Your task to perform on an android device: turn on airplane mode Image 0: 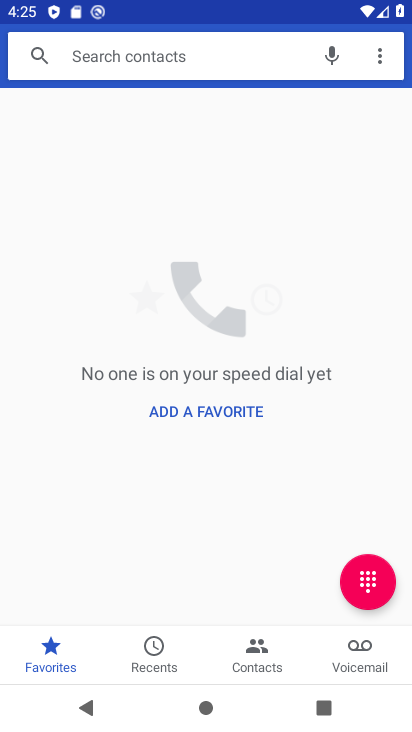
Step 0: press home button
Your task to perform on an android device: turn on airplane mode Image 1: 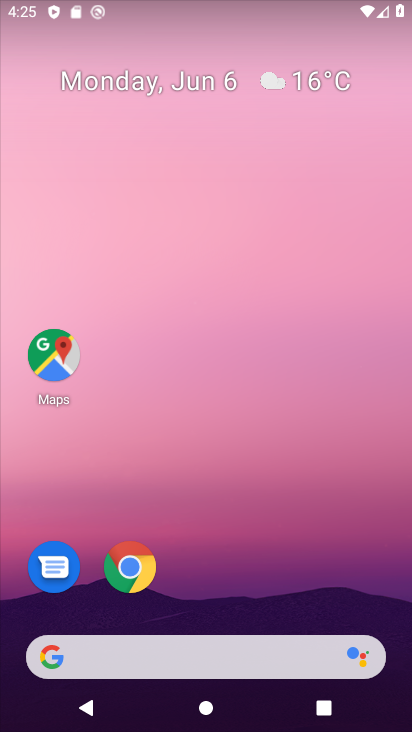
Step 1: drag from (267, 499) to (373, 86)
Your task to perform on an android device: turn on airplane mode Image 2: 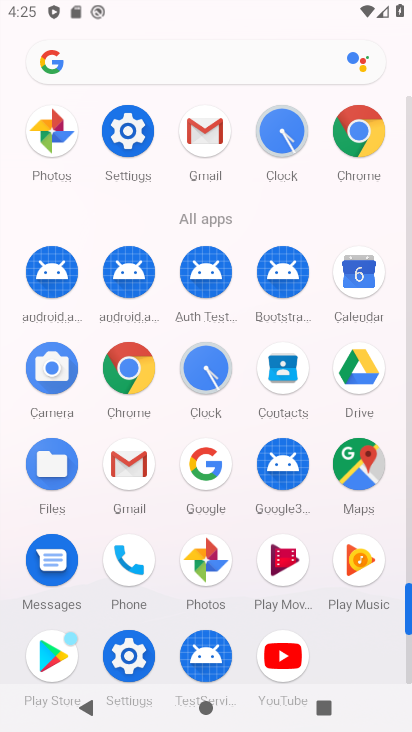
Step 2: click (137, 654)
Your task to perform on an android device: turn on airplane mode Image 3: 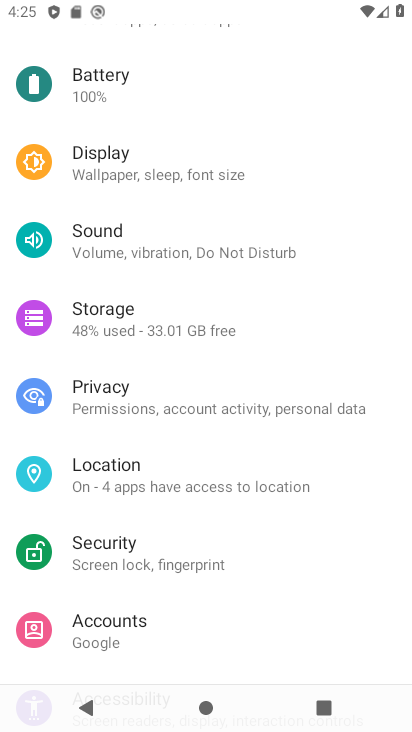
Step 3: drag from (205, 169) to (213, 640)
Your task to perform on an android device: turn on airplane mode Image 4: 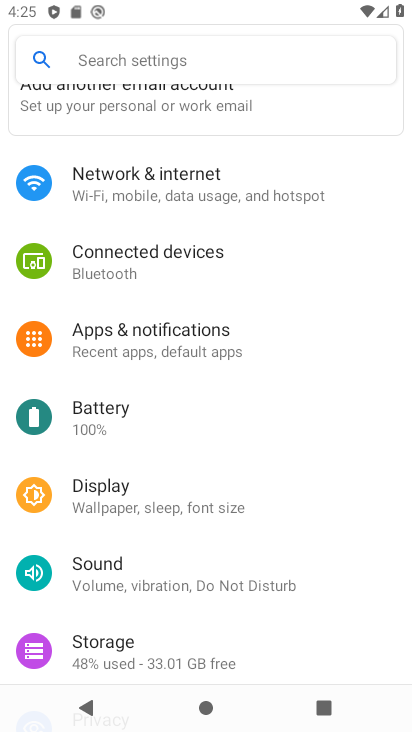
Step 4: click (240, 175)
Your task to perform on an android device: turn on airplane mode Image 5: 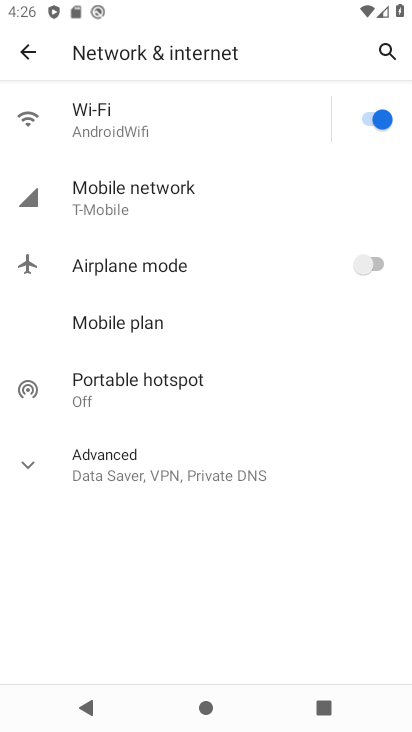
Step 5: click (389, 266)
Your task to perform on an android device: turn on airplane mode Image 6: 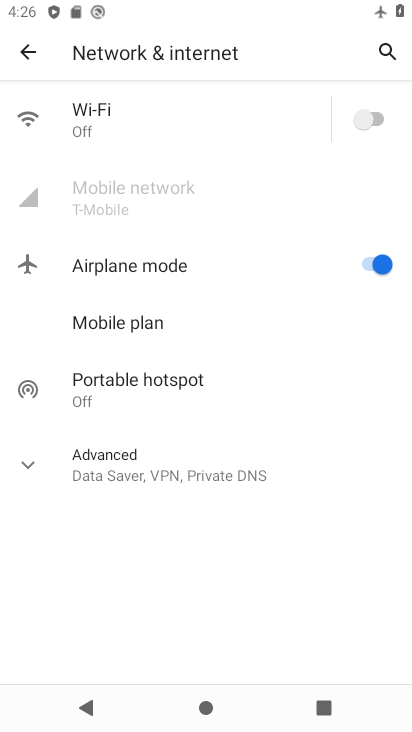
Step 6: task complete